Your task to perform on an android device: turn off location Image 0: 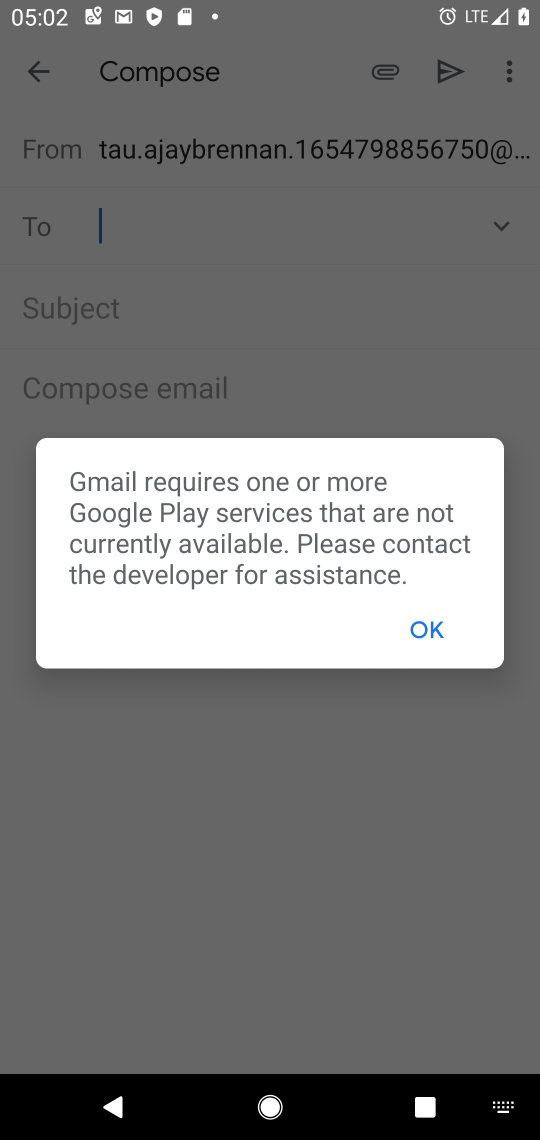
Step 0: press home button
Your task to perform on an android device: turn off location Image 1: 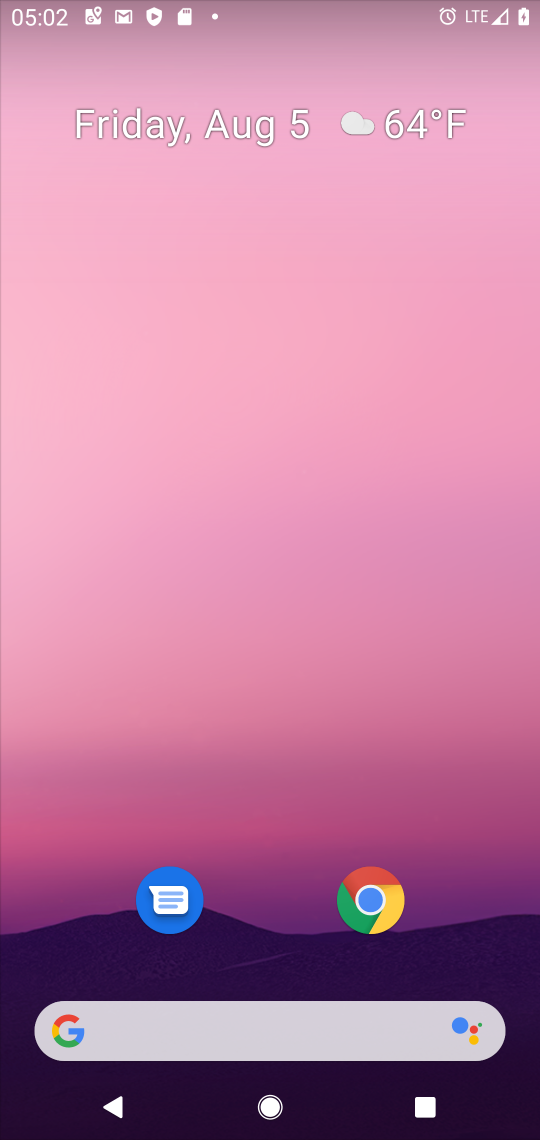
Step 1: drag from (283, 842) to (396, 102)
Your task to perform on an android device: turn off location Image 2: 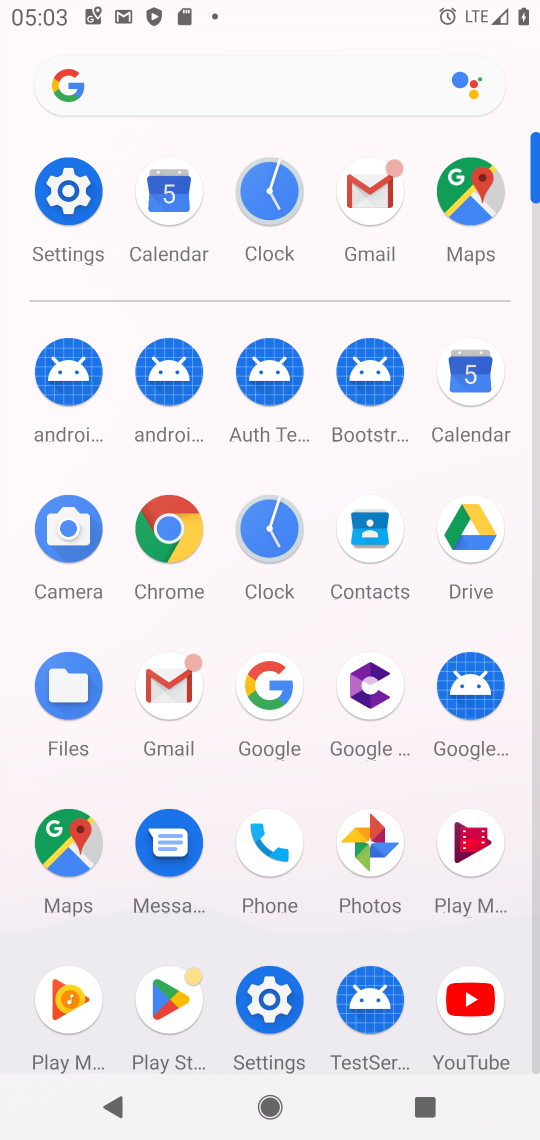
Step 2: click (69, 193)
Your task to perform on an android device: turn off location Image 3: 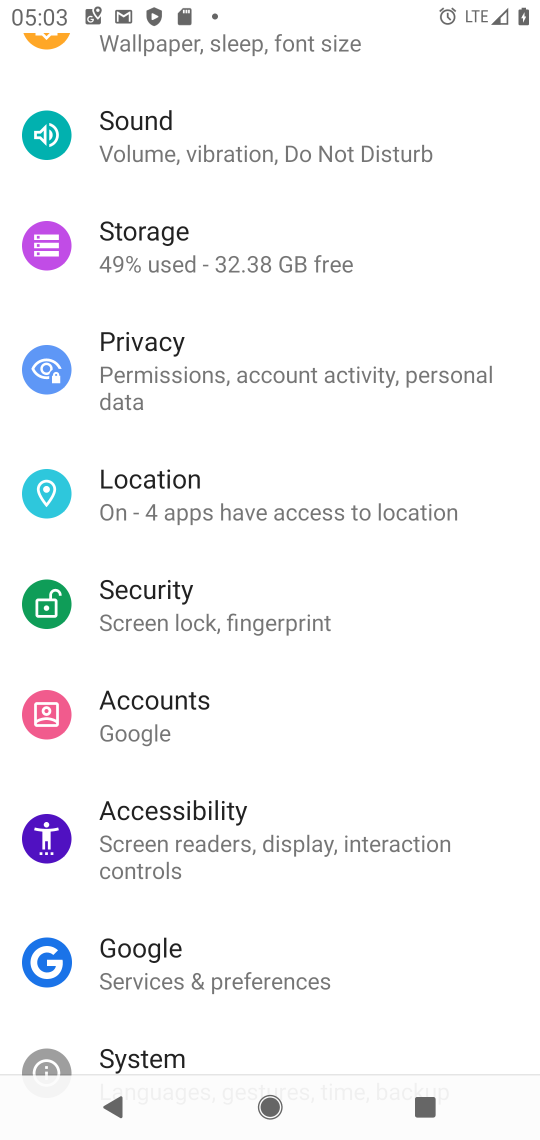
Step 3: click (141, 480)
Your task to perform on an android device: turn off location Image 4: 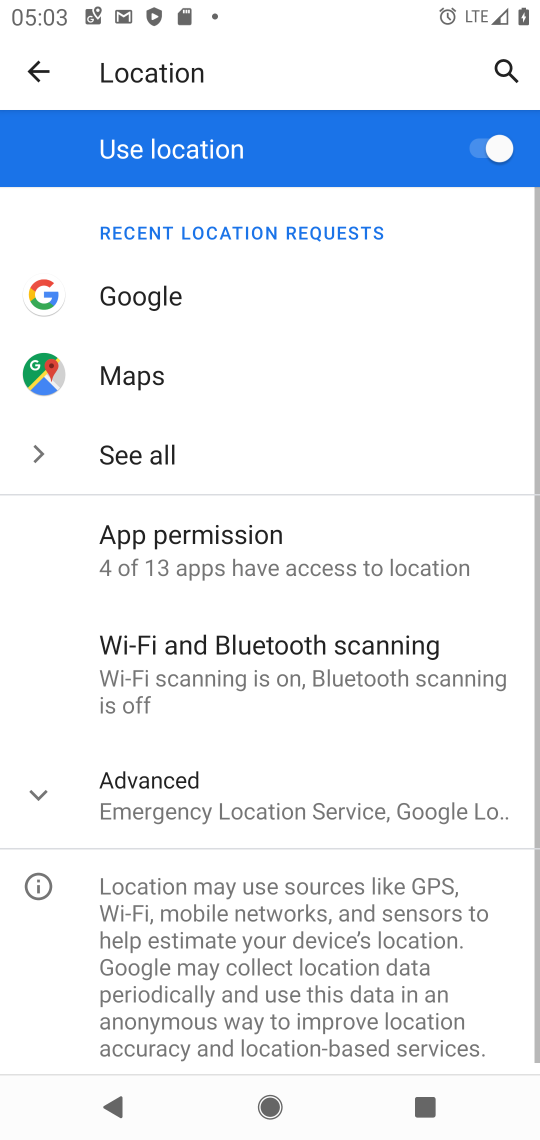
Step 4: click (501, 149)
Your task to perform on an android device: turn off location Image 5: 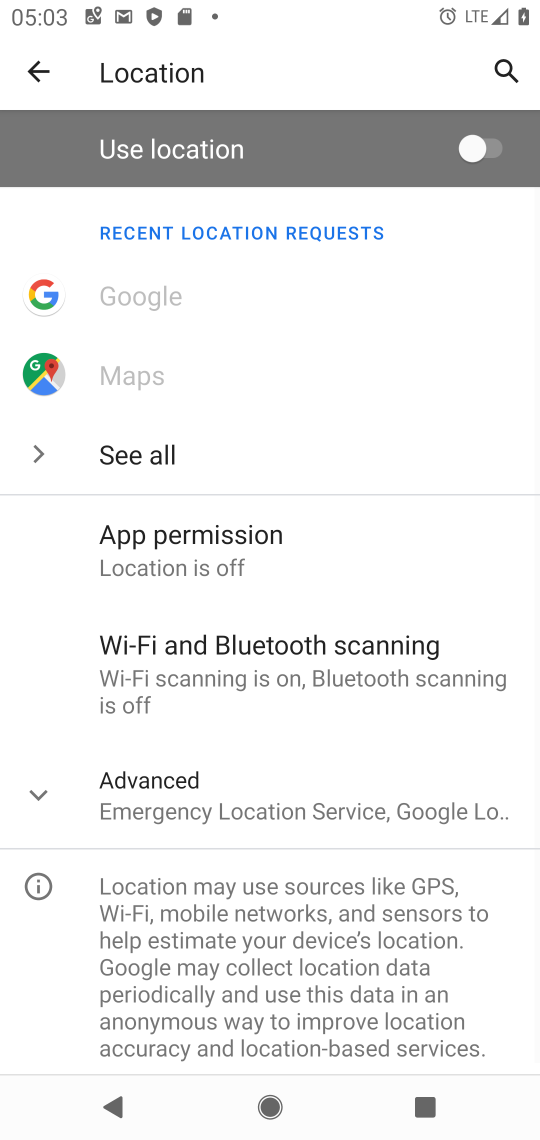
Step 5: task complete